Your task to perform on an android device: change alarm snooze length Image 0: 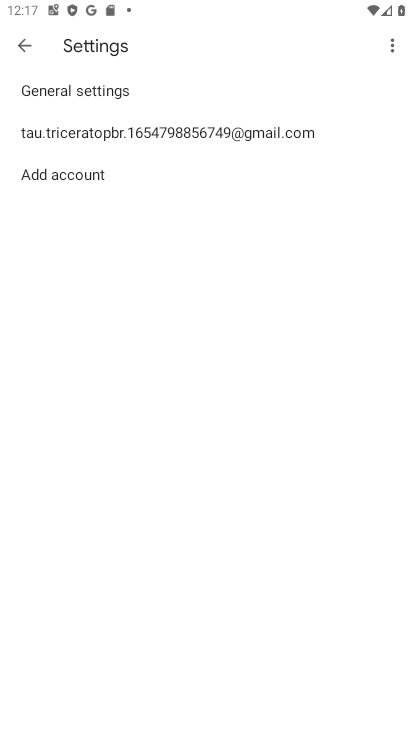
Step 0: press home button
Your task to perform on an android device: change alarm snooze length Image 1: 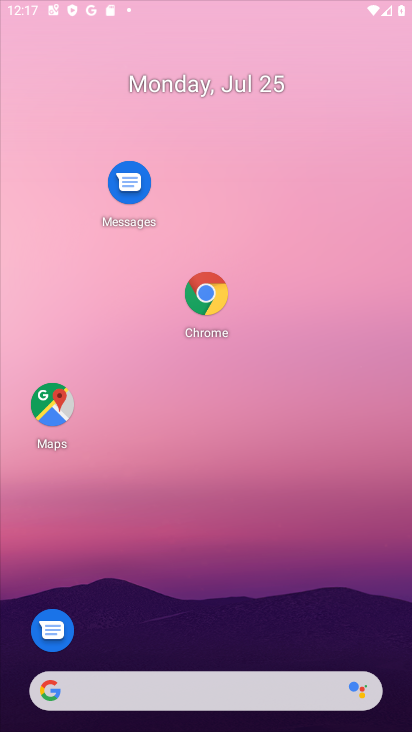
Step 1: drag from (357, 685) to (344, 19)
Your task to perform on an android device: change alarm snooze length Image 2: 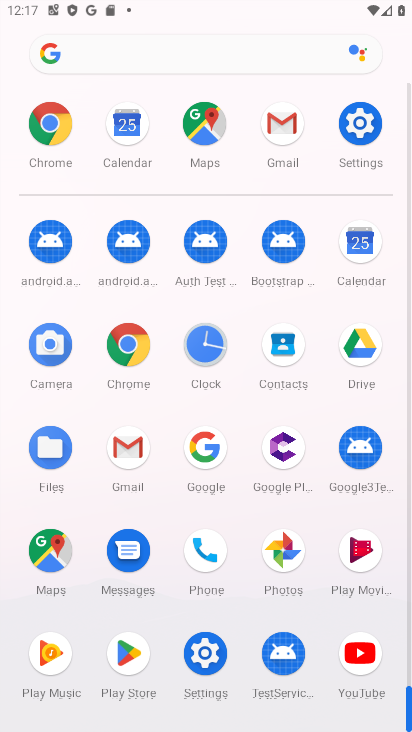
Step 2: click (219, 352)
Your task to perform on an android device: change alarm snooze length Image 3: 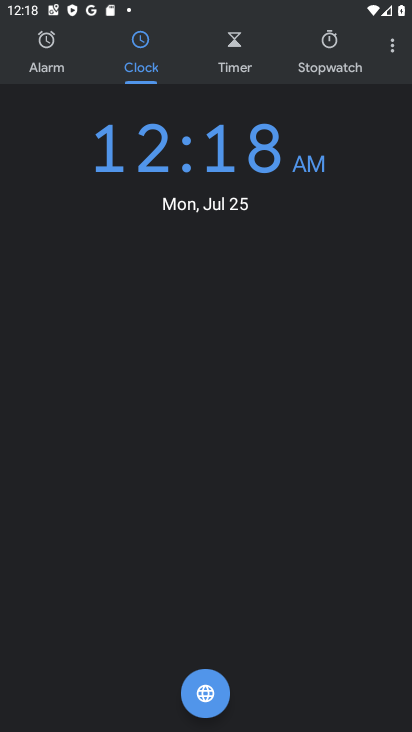
Step 3: drag from (392, 43) to (287, 98)
Your task to perform on an android device: change alarm snooze length Image 4: 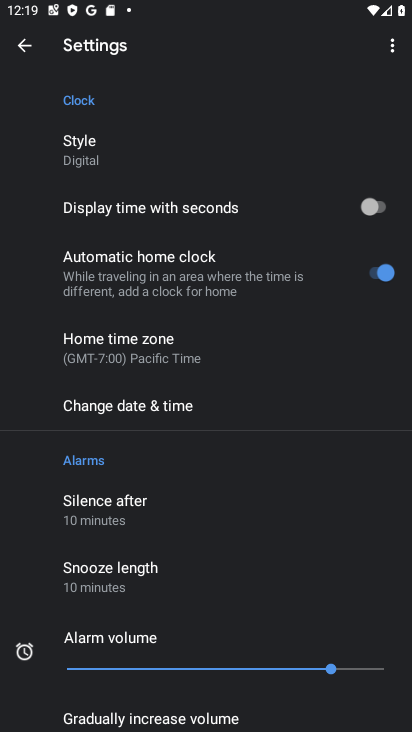
Step 4: drag from (180, 588) to (160, 454)
Your task to perform on an android device: change alarm snooze length Image 5: 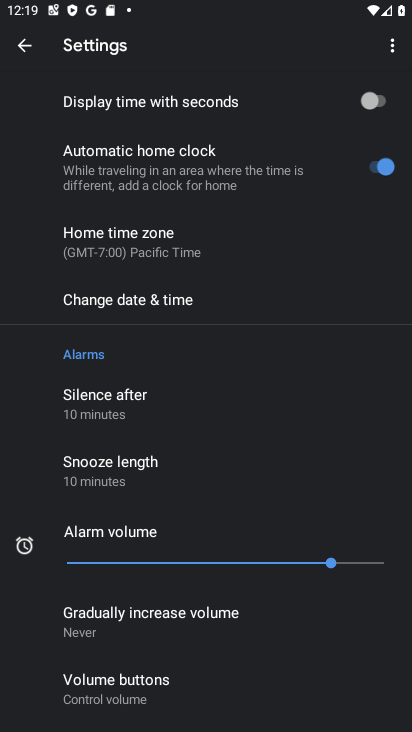
Step 5: click (132, 471)
Your task to perform on an android device: change alarm snooze length Image 6: 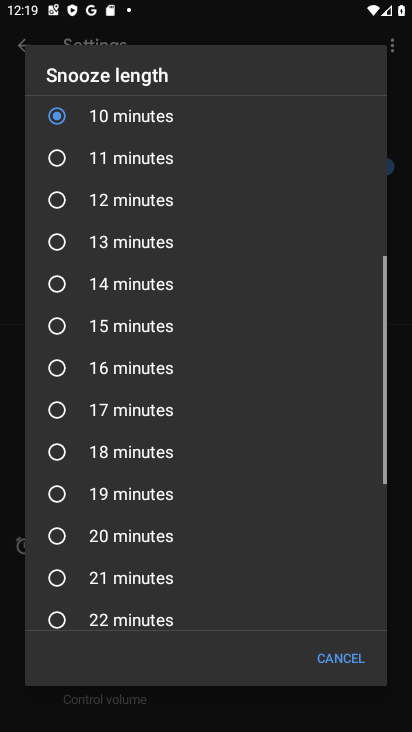
Step 6: click (132, 471)
Your task to perform on an android device: change alarm snooze length Image 7: 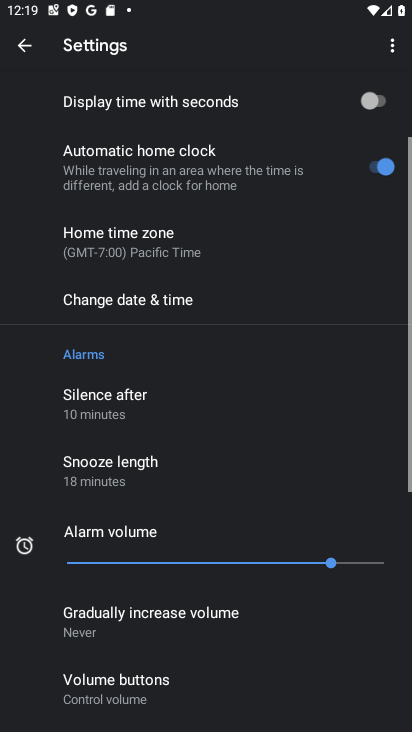
Step 7: task complete